Your task to perform on an android device: Open settings Image 0: 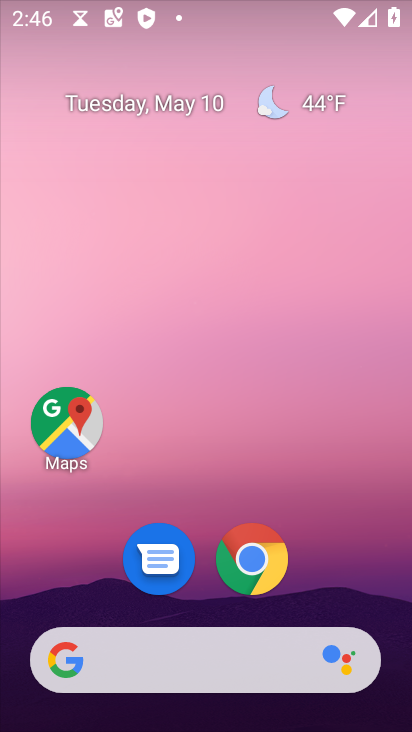
Step 0: drag from (303, 520) to (79, 51)
Your task to perform on an android device: Open settings Image 1: 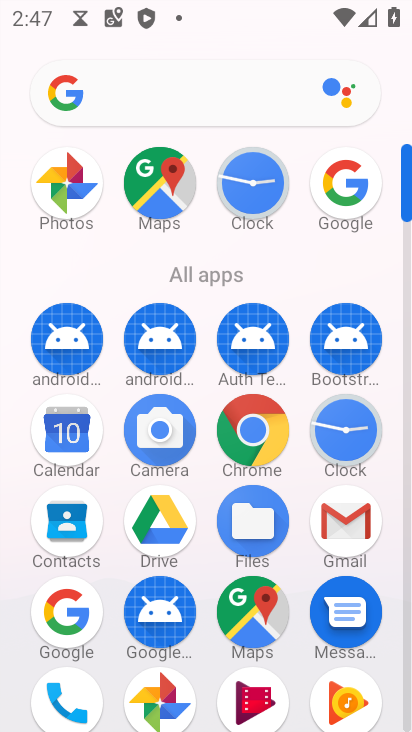
Step 1: drag from (288, 570) to (227, 204)
Your task to perform on an android device: Open settings Image 2: 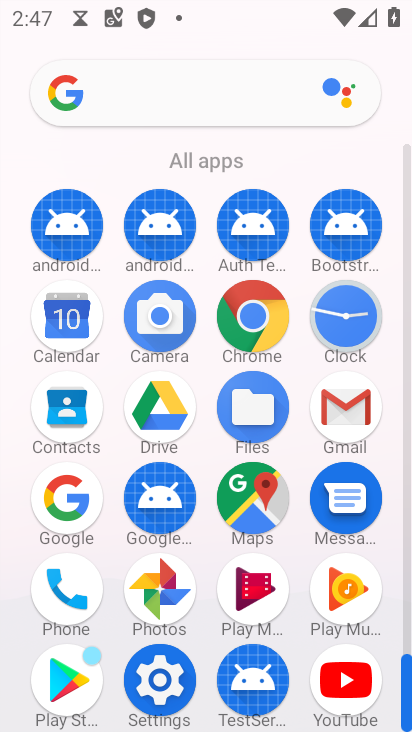
Step 2: drag from (302, 416) to (303, 242)
Your task to perform on an android device: Open settings Image 3: 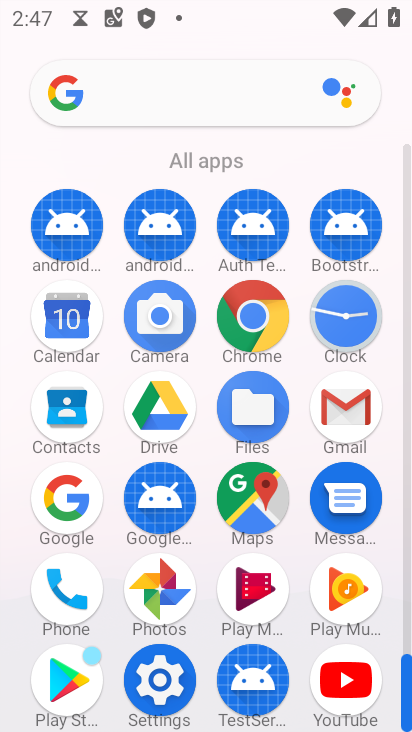
Step 3: click (161, 675)
Your task to perform on an android device: Open settings Image 4: 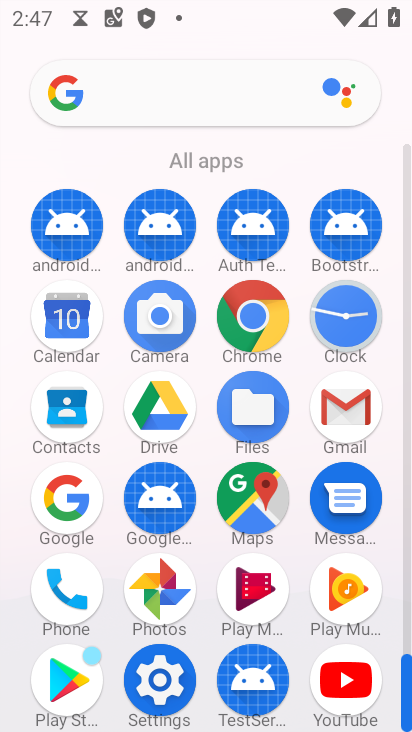
Step 4: click (161, 675)
Your task to perform on an android device: Open settings Image 5: 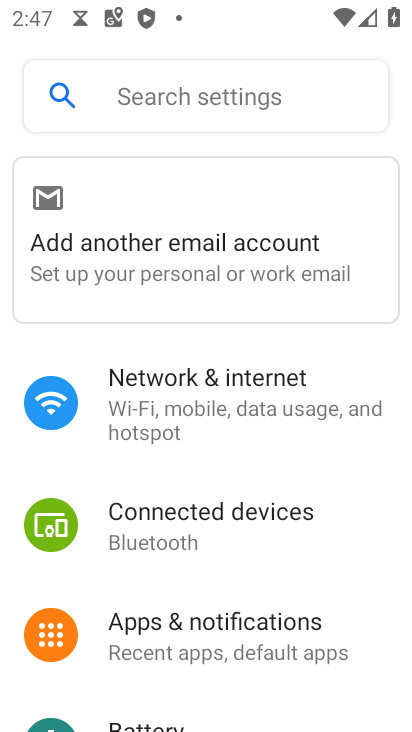
Step 5: drag from (245, 510) to (212, 244)
Your task to perform on an android device: Open settings Image 6: 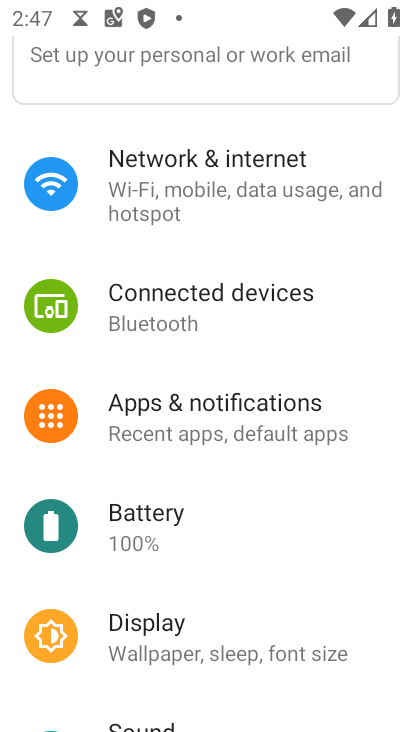
Step 6: drag from (202, 455) to (176, 281)
Your task to perform on an android device: Open settings Image 7: 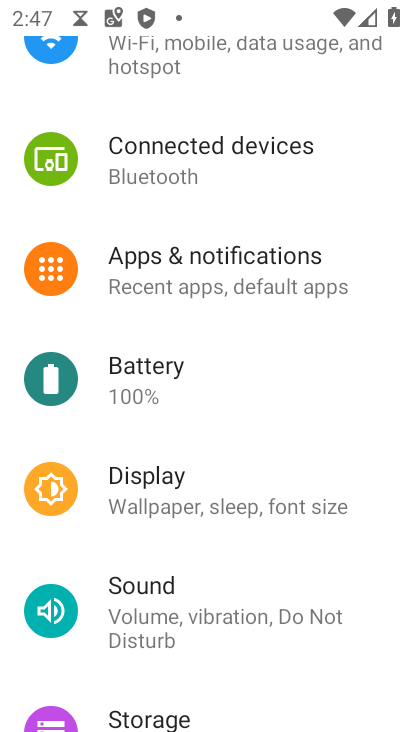
Step 7: drag from (176, 490) to (115, 233)
Your task to perform on an android device: Open settings Image 8: 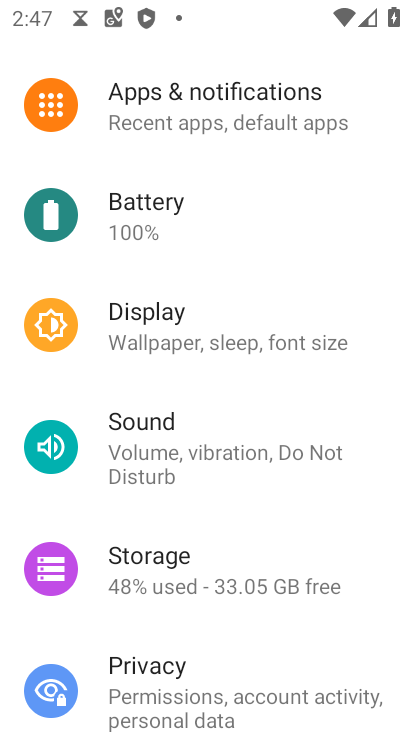
Step 8: drag from (126, 391) to (111, 84)
Your task to perform on an android device: Open settings Image 9: 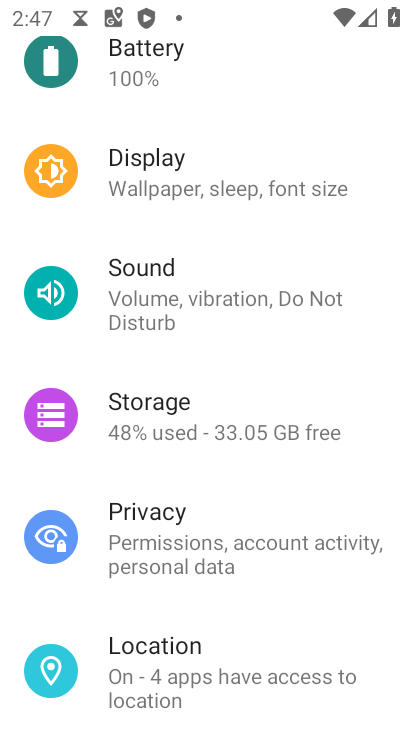
Step 9: drag from (210, 419) to (204, 89)
Your task to perform on an android device: Open settings Image 10: 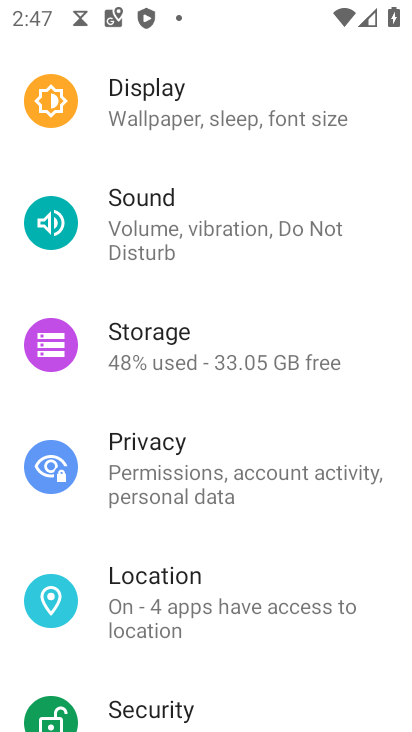
Step 10: drag from (140, 363) to (159, 2)
Your task to perform on an android device: Open settings Image 11: 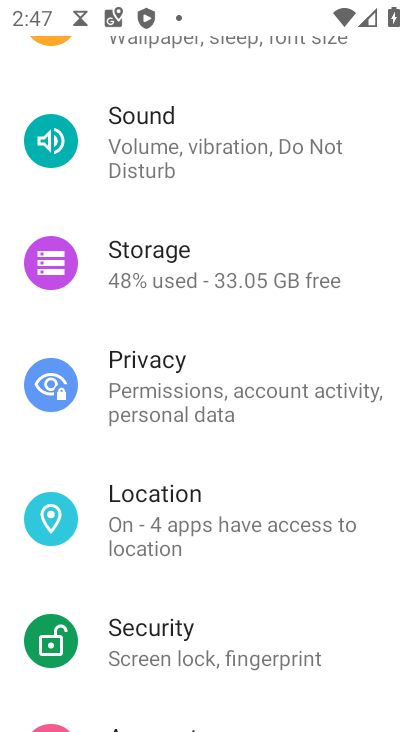
Step 11: drag from (183, 448) to (164, 168)
Your task to perform on an android device: Open settings Image 12: 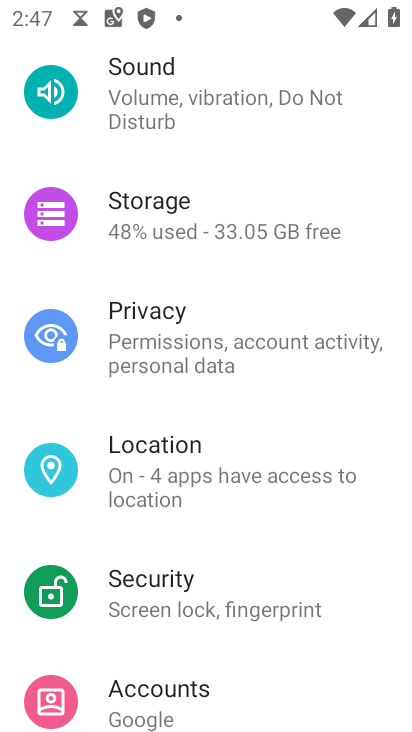
Step 12: drag from (197, 508) to (182, 170)
Your task to perform on an android device: Open settings Image 13: 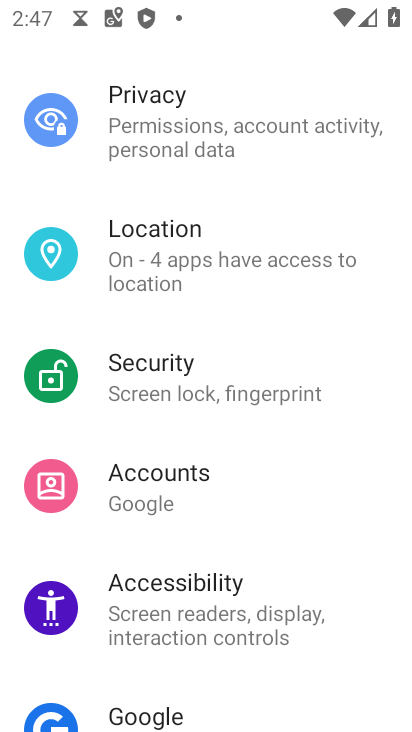
Step 13: drag from (207, 461) to (156, 92)
Your task to perform on an android device: Open settings Image 14: 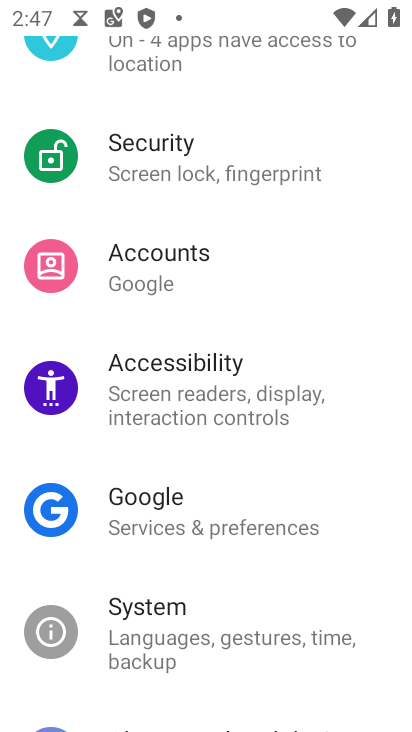
Step 14: drag from (184, 114) to (206, 196)
Your task to perform on an android device: Open settings Image 15: 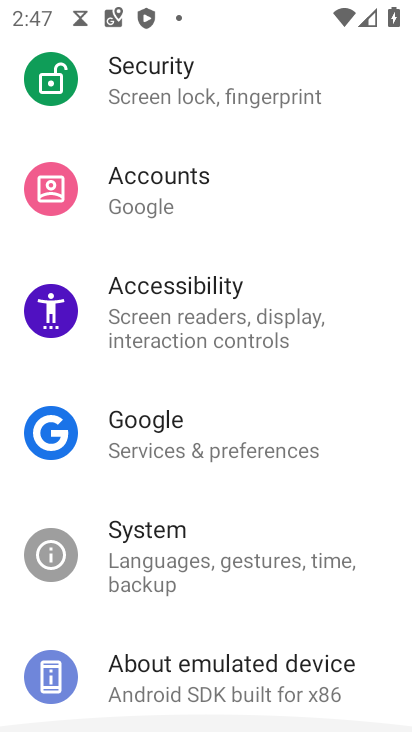
Step 15: drag from (219, 489) to (155, 87)
Your task to perform on an android device: Open settings Image 16: 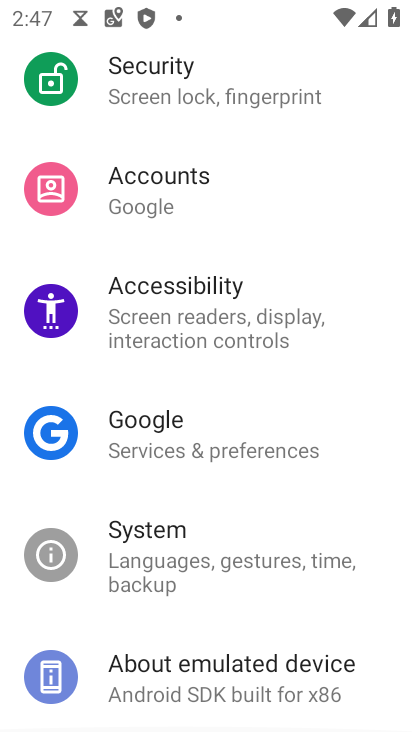
Step 16: drag from (180, 296) to (183, 569)
Your task to perform on an android device: Open settings Image 17: 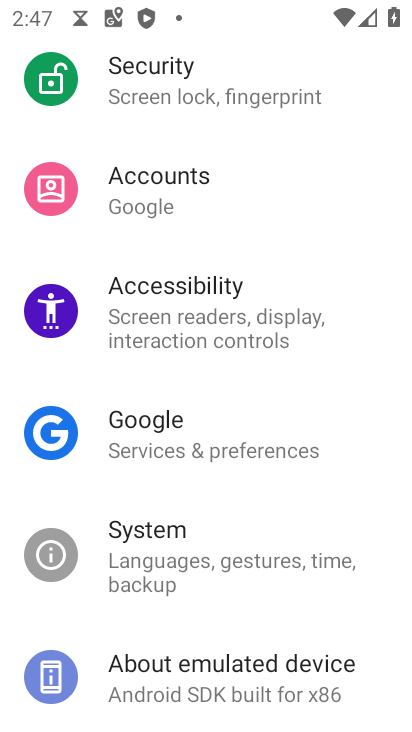
Step 17: drag from (120, 238) to (155, 639)
Your task to perform on an android device: Open settings Image 18: 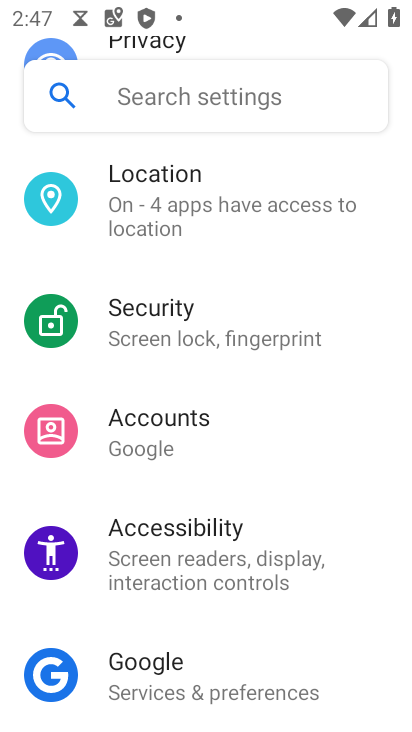
Step 18: click (210, 649)
Your task to perform on an android device: Open settings Image 19: 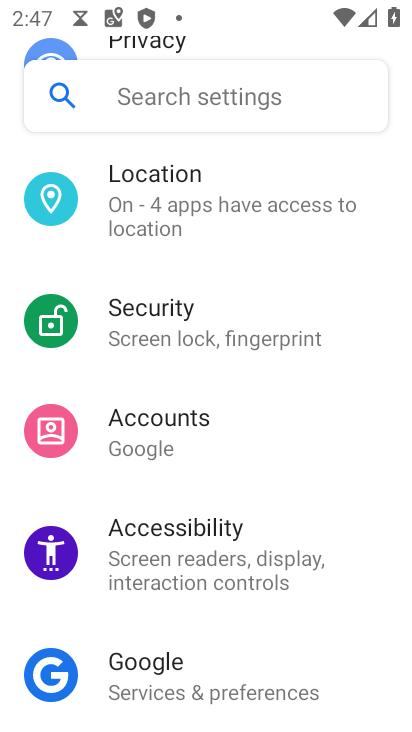
Step 19: task complete